Your task to perform on an android device: Open Google Chrome and open the bookmarks view Image 0: 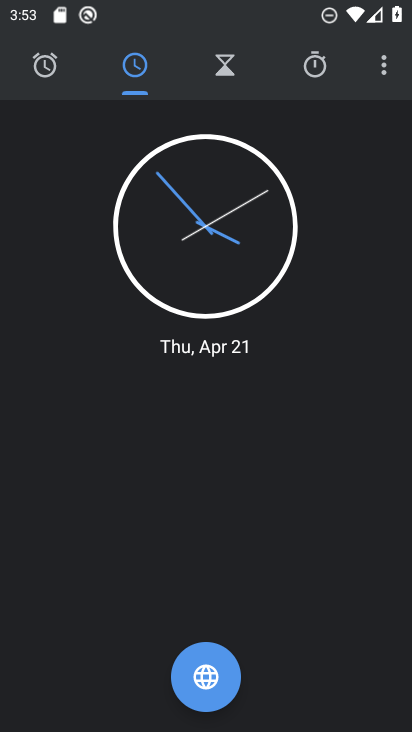
Step 0: press home button
Your task to perform on an android device: Open Google Chrome and open the bookmarks view Image 1: 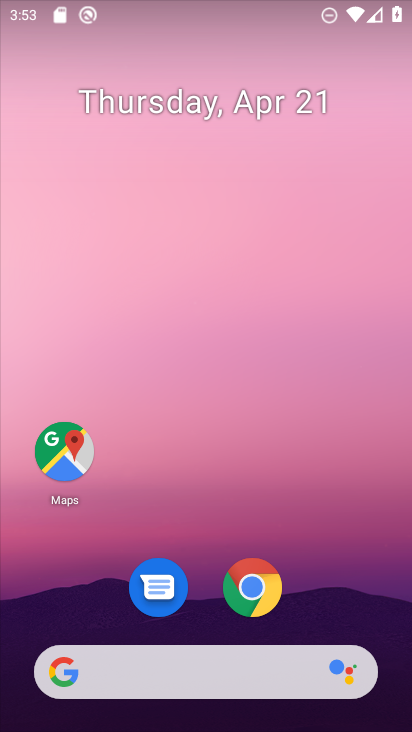
Step 1: click (252, 593)
Your task to perform on an android device: Open Google Chrome and open the bookmarks view Image 2: 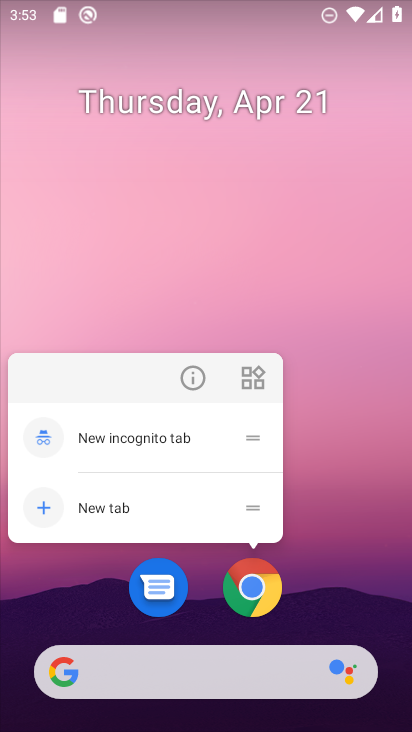
Step 2: click (251, 586)
Your task to perform on an android device: Open Google Chrome and open the bookmarks view Image 3: 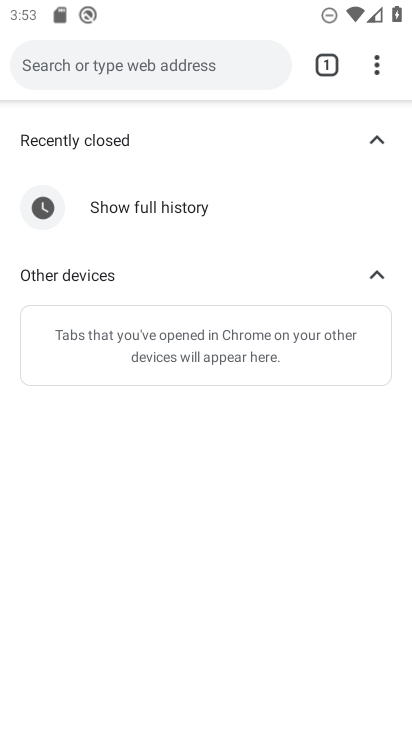
Step 3: click (373, 64)
Your task to perform on an android device: Open Google Chrome and open the bookmarks view Image 4: 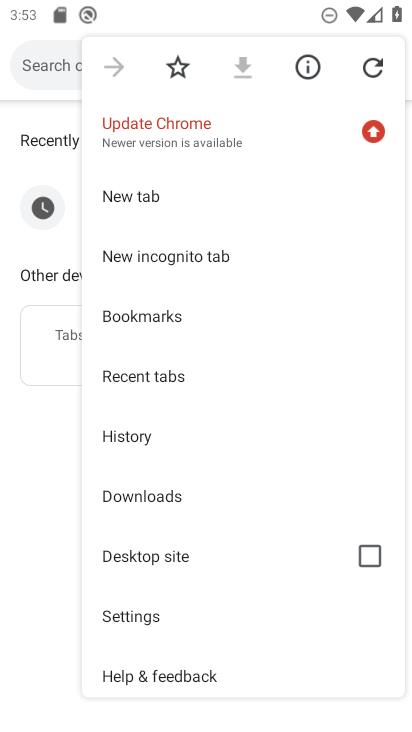
Step 4: click (136, 317)
Your task to perform on an android device: Open Google Chrome and open the bookmarks view Image 5: 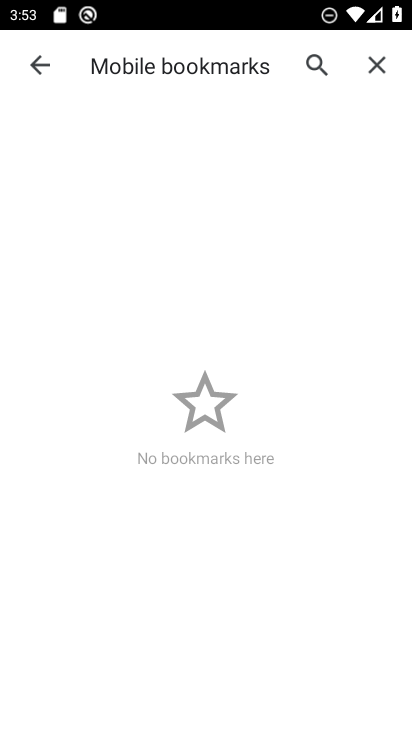
Step 5: task complete